Your task to perform on an android device: Open CNN.com Image 0: 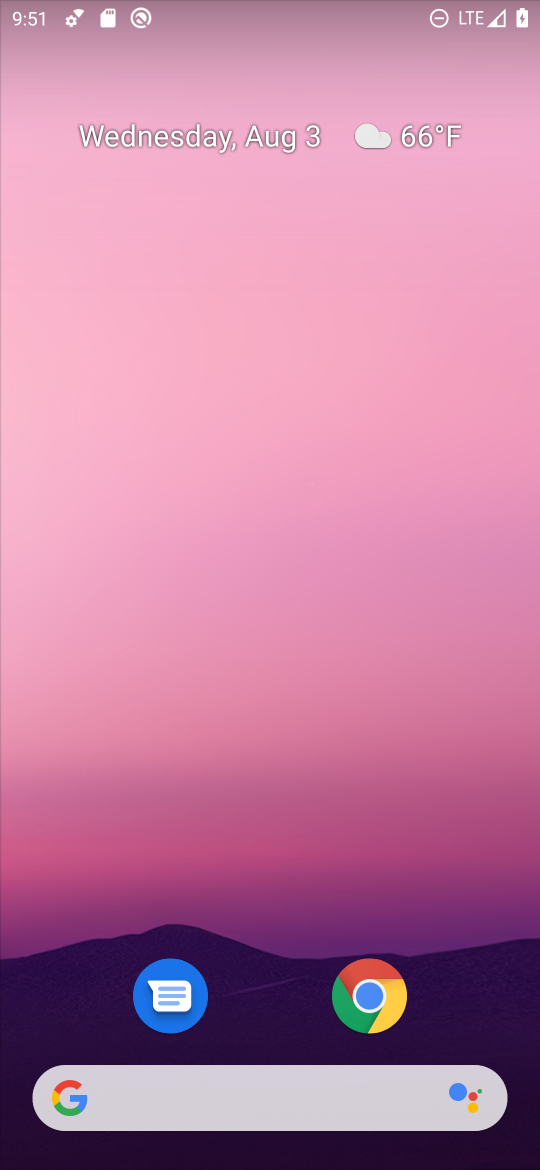
Step 0: click (375, 1099)
Your task to perform on an android device: Open CNN.com Image 1: 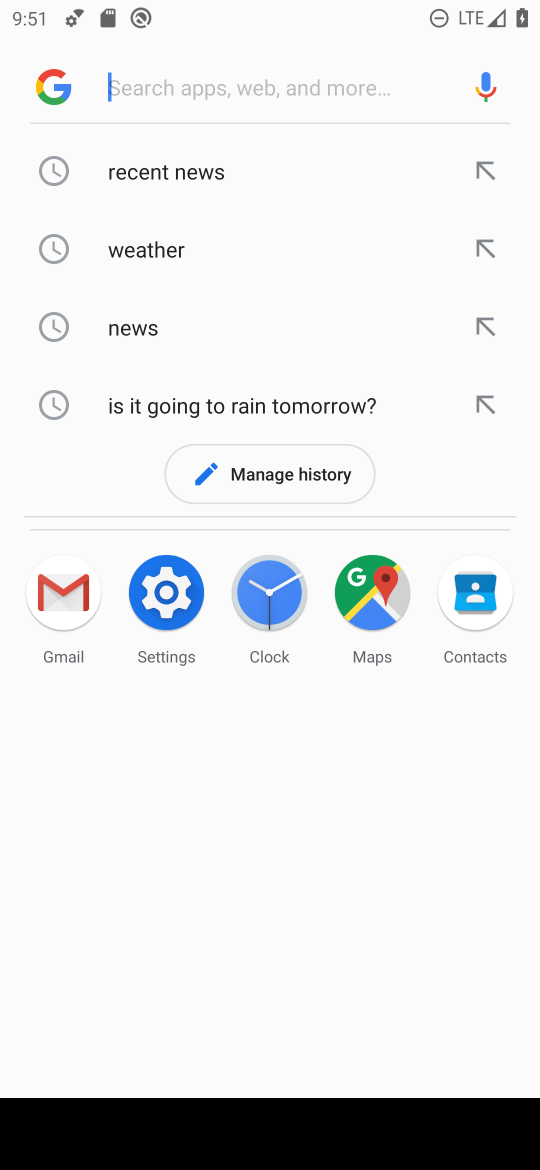
Step 1: type "cnn.com"
Your task to perform on an android device: Open CNN.com Image 2: 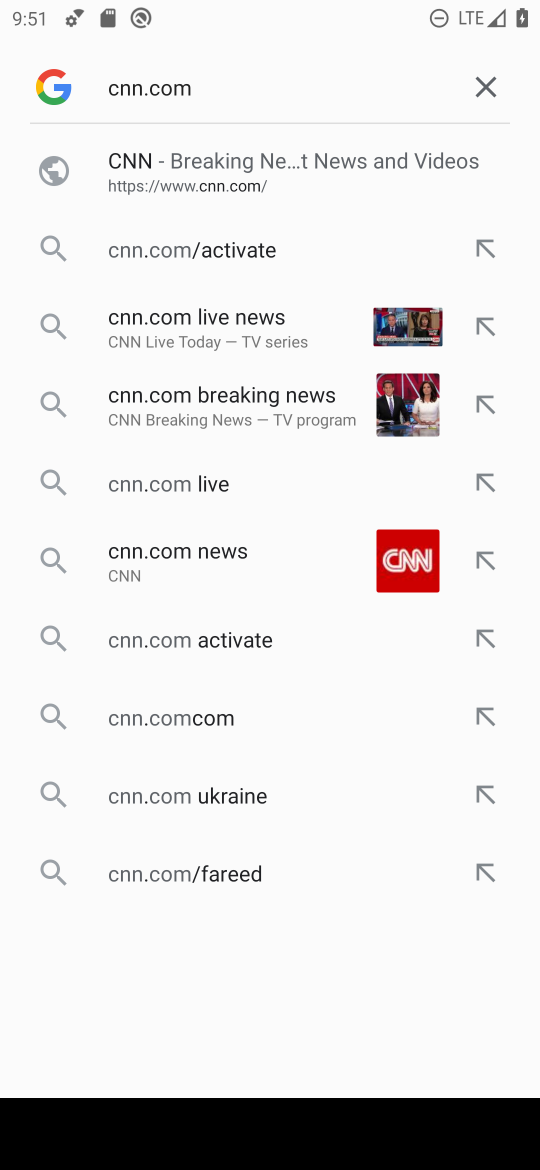
Step 2: click (260, 162)
Your task to perform on an android device: Open CNN.com Image 3: 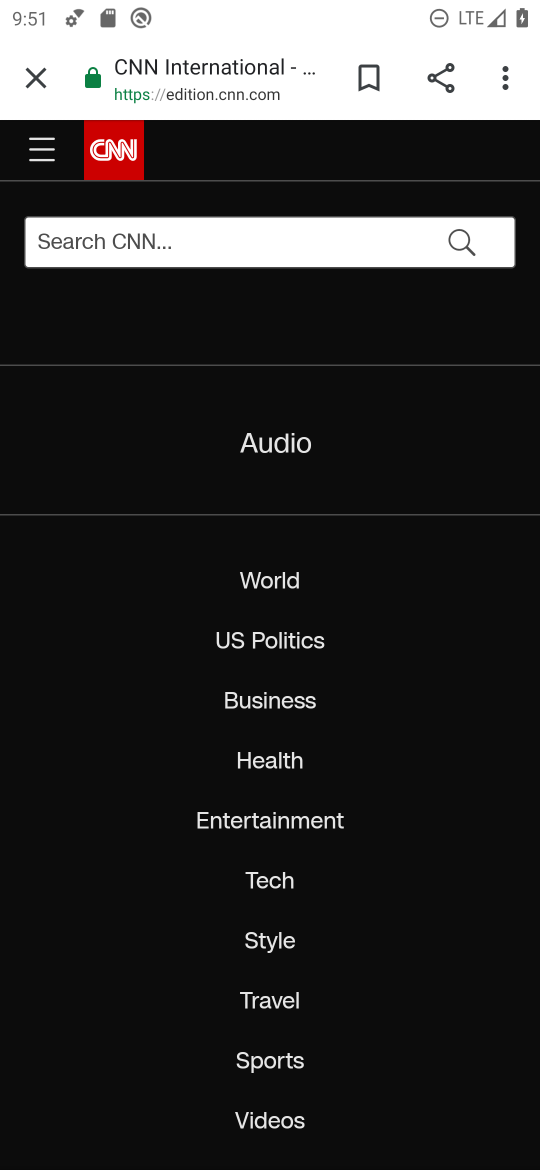
Step 3: task complete